Your task to perform on an android device: Open sound settings Image 0: 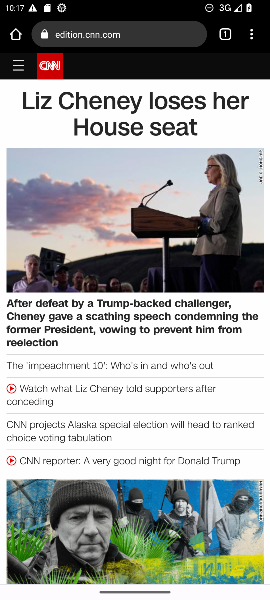
Step 0: press home button
Your task to perform on an android device: Open sound settings Image 1: 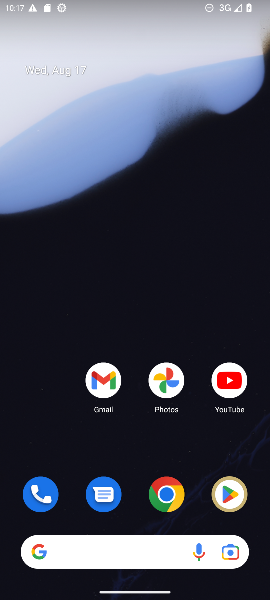
Step 1: drag from (187, 505) to (194, 122)
Your task to perform on an android device: Open sound settings Image 2: 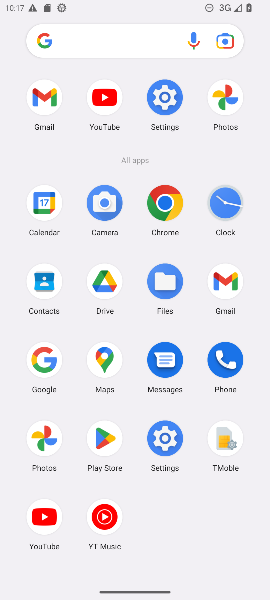
Step 2: click (175, 435)
Your task to perform on an android device: Open sound settings Image 3: 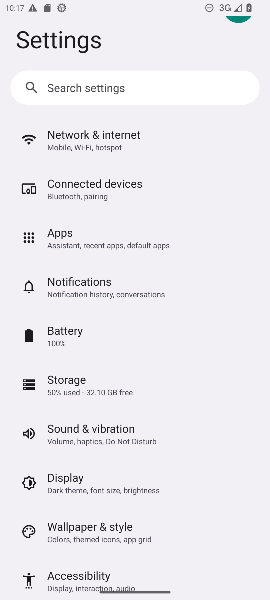
Step 3: drag from (131, 513) to (131, 295)
Your task to perform on an android device: Open sound settings Image 4: 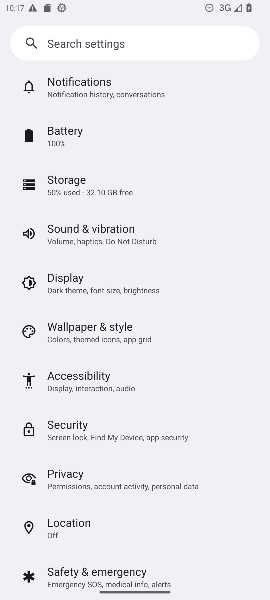
Step 4: click (90, 223)
Your task to perform on an android device: Open sound settings Image 5: 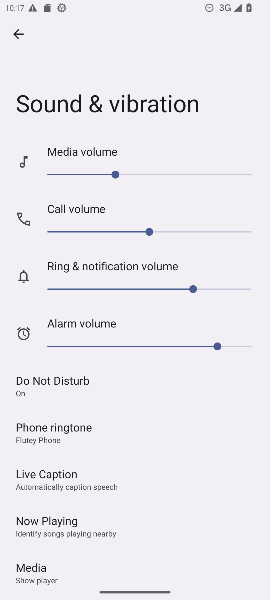
Step 5: task complete